Your task to perform on an android device: Search for "dell alienware" on bestbuy, select the first entry, add it to the cart, then select checkout. Image 0: 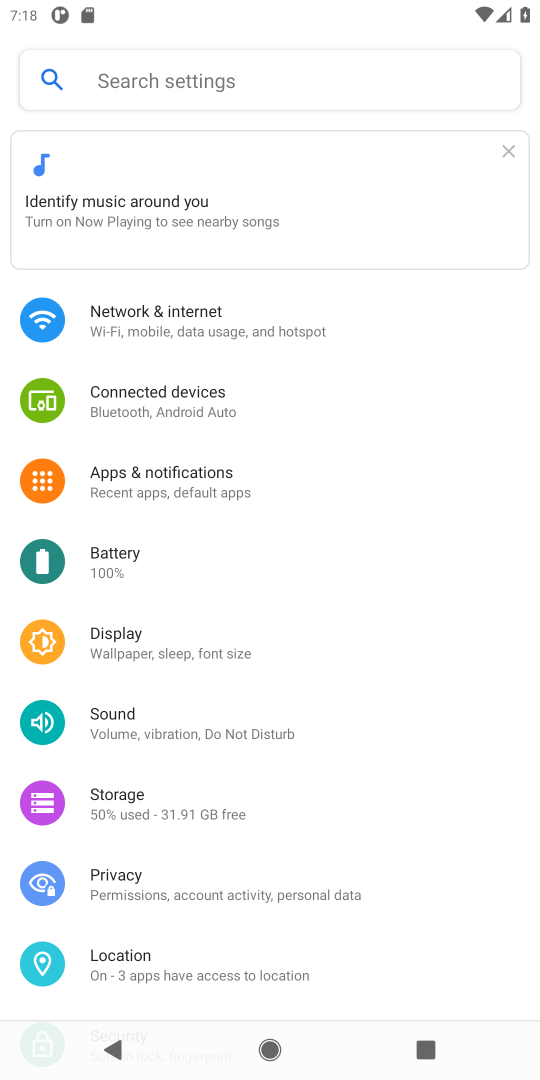
Step 0: press home button
Your task to perform on an android device: Search for "dell alienware" on bestbuy, select the first entry, add it to the cart, then select checkout. Image 1: 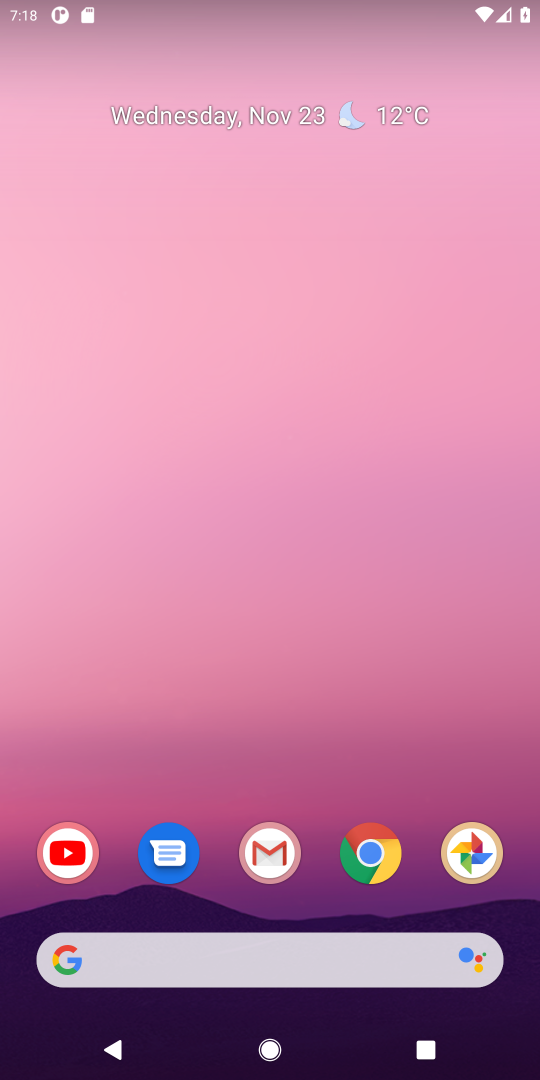
Step 1: click (369, 863)
Your task to perform on an android device: Search for "dell alienware" on bestbuy, select the first entry, add it to the cart, then select checkout. Image 2: 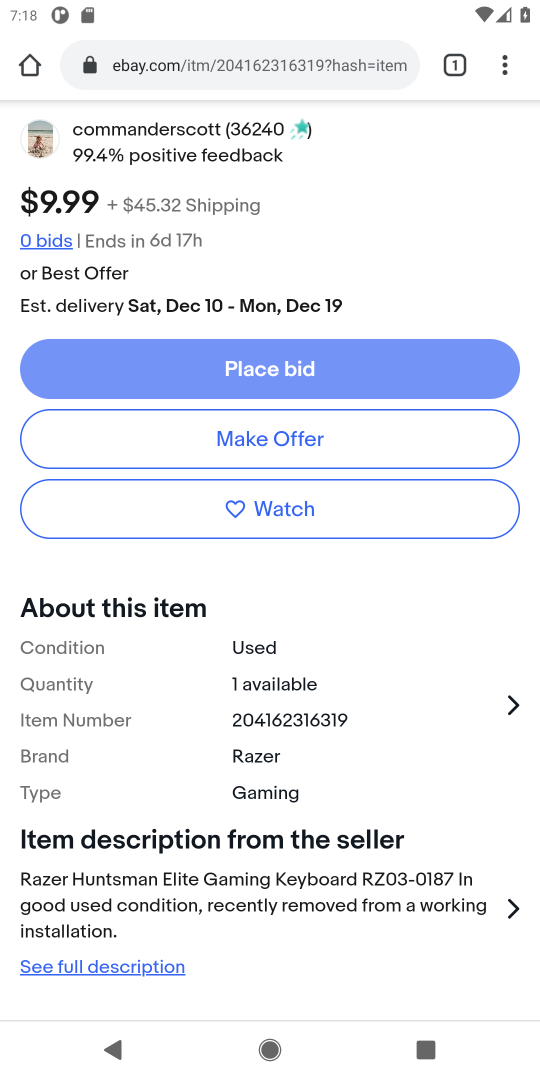
Step 2: click (241, 69)
Your task to perform on an android device: Search for "dell alienware" on bestbuy, select the first entry, add it to the cart, then select checkout. Image 3: 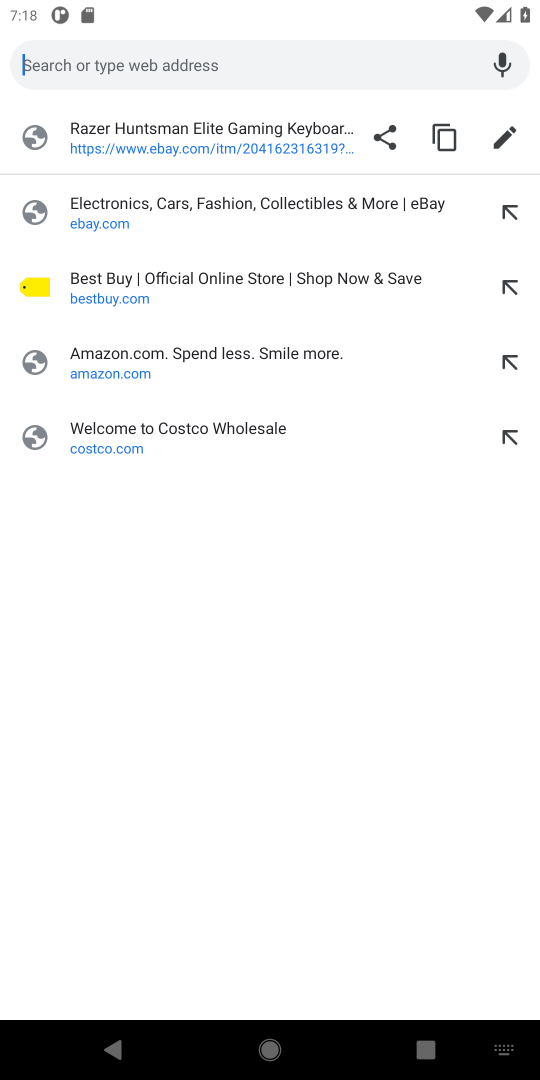
Step 3: click (75, 309)
Your task to perform on an android device: Search for "dell alienware" on bestbuy, select the first entry, add it to the cart, then select checkout. Image 4: 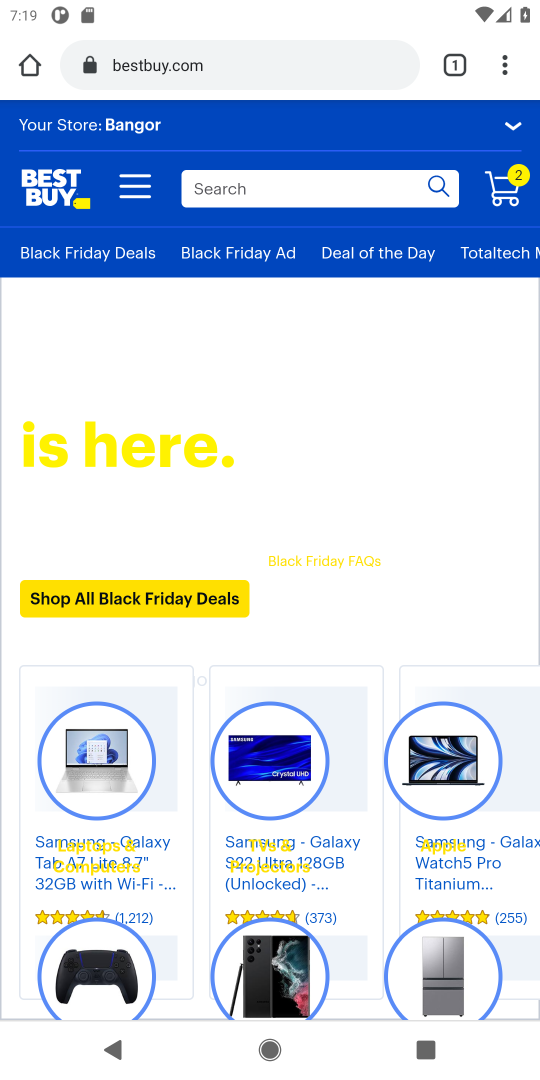
Step 4: click (212, 197)
Your task to perform on an android device: Search for "dell alienware" on bestbuy, select the first entry, add it to the cart, then select checkout. Image 5: 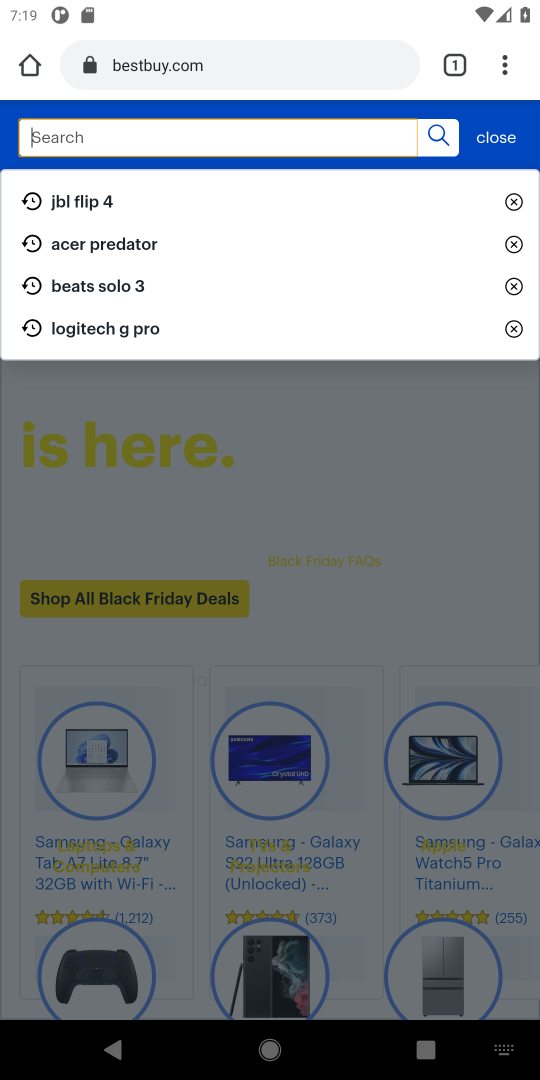
Step 5: type "dell alienware"
Your task to perform on an android device: Search for "dell alienware" on bestbuy, select the first entry, add it to the cart, then select checkout. Image 6: 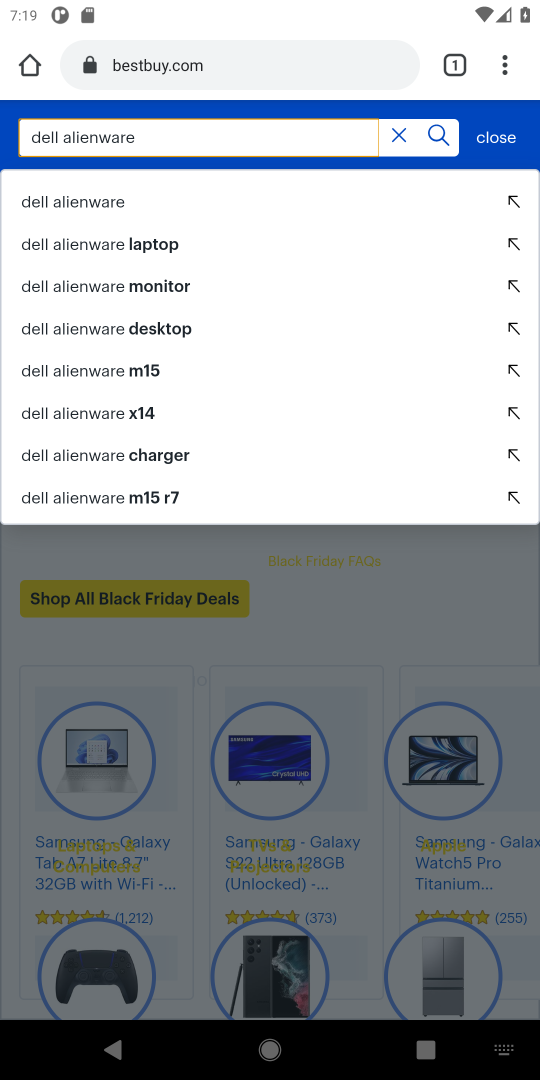
Step 6: click (98, 203)
Your task to perform on an android device: Search for "dell alienware" on bestbuy, select the first entry, add it to the cart, then select checkout. Image 7: 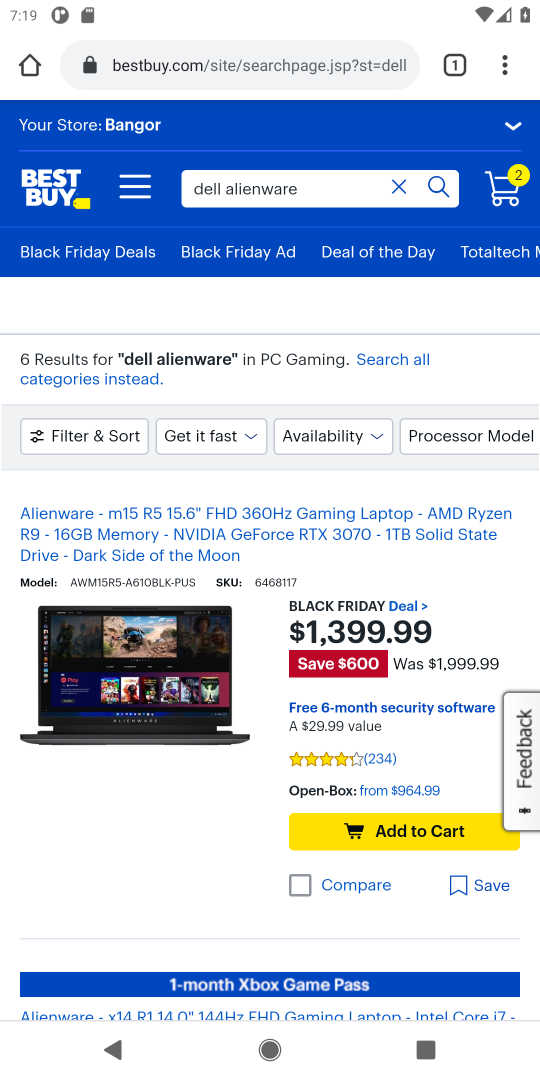
Step 7: click (121, 707)
Your task to perform on an android device: Search for "dell alienware" on bestbuy, select the first entry, add it to the cart, then select checkout. Image 8: 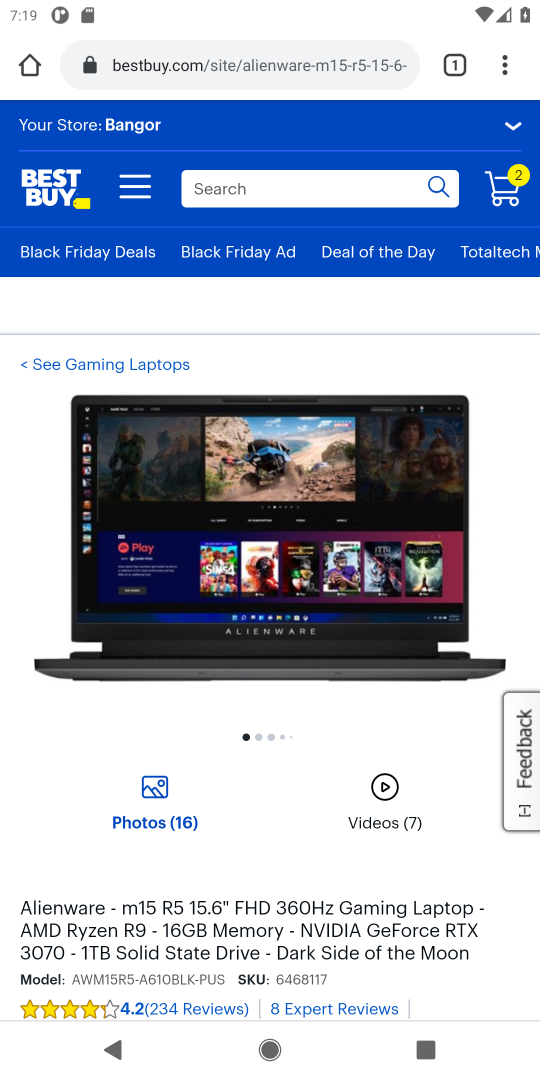
Step 8: drag from (256, 797) to (240, 461)
Your task to perform on an android device: Search for "dell alienware" on bestbuy, select the first entry, add it to the cart, then select checkout. Image 9: 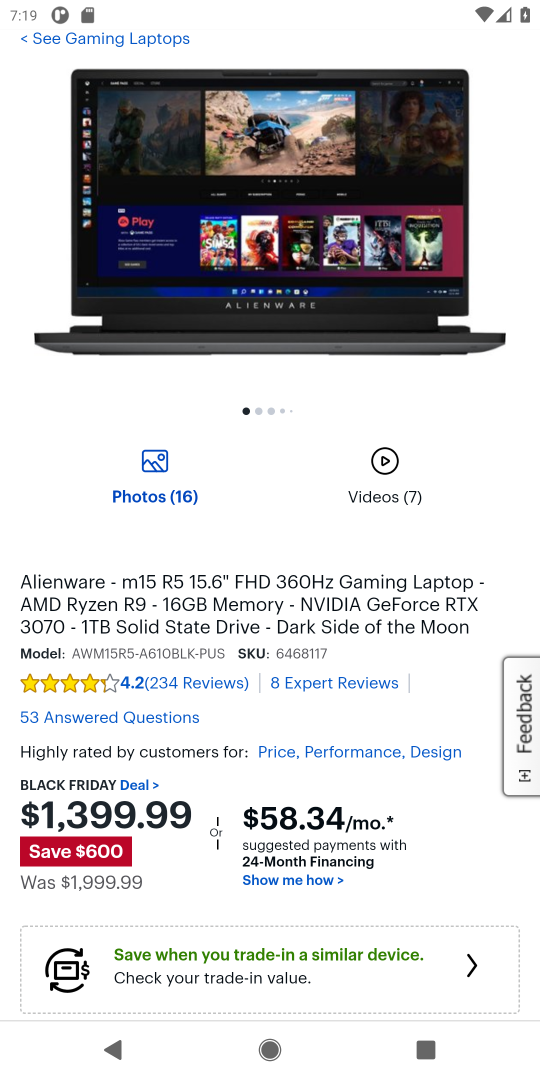
Step 9: drag from (207, 755) to (219, 304)
Your task to perform on an android device: Search for "dell alienware" on bestbuy, select the first entry, add it to the cart, then select checkout. Image 10: 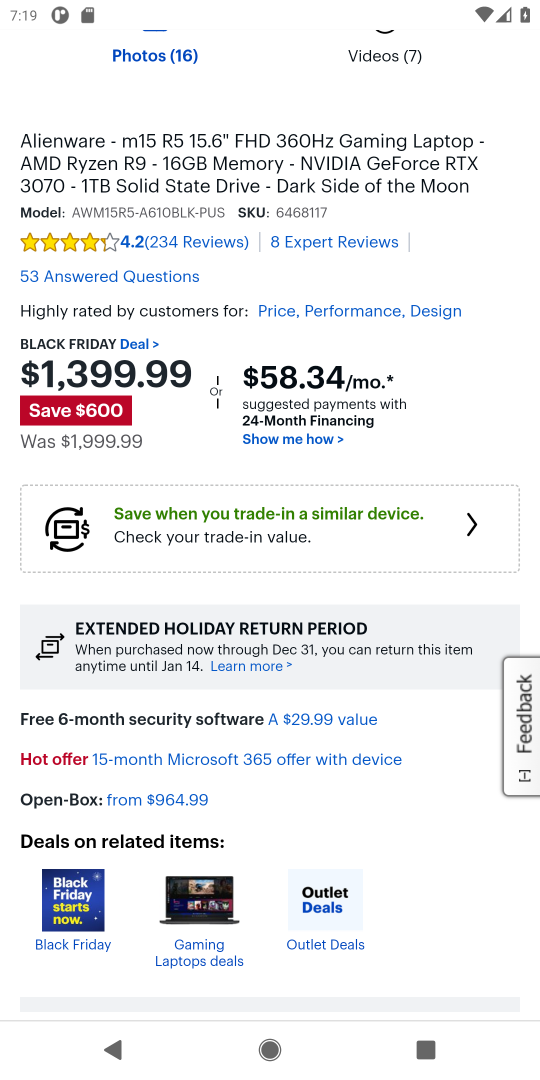
Step 10: drag from (206, 719) to (190, 327)
Your task to perform on an android device: Search for "dell alienware" on bestbuy, select the first entry, add it to the cart, then select checkout. Image 11: 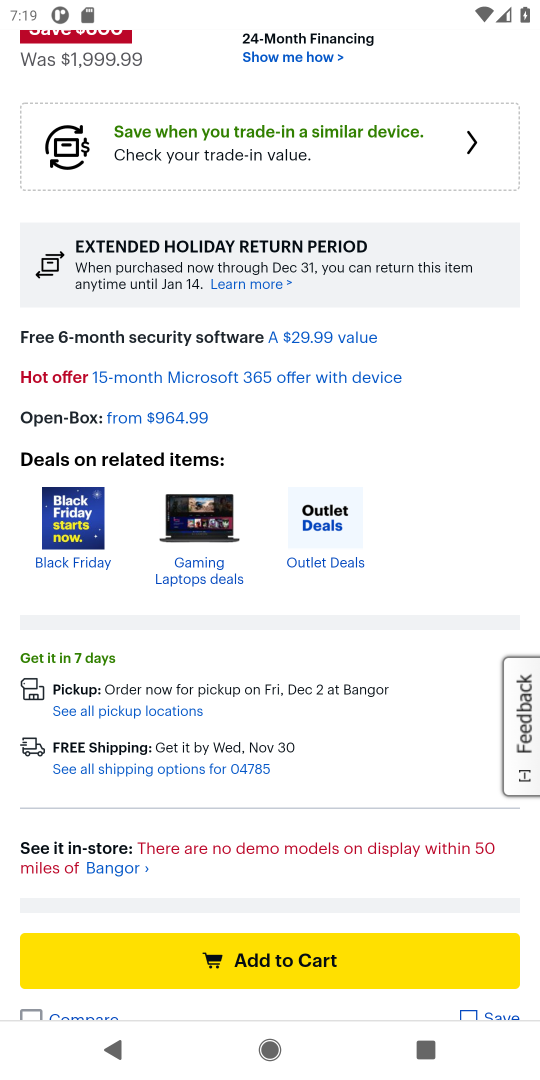
Step 11: click (261, 963)
Your task to perform on an android device: Search for "dell alienware" on bestbuy, select the first entry, add it to the cart, then select checkout. Image 12: 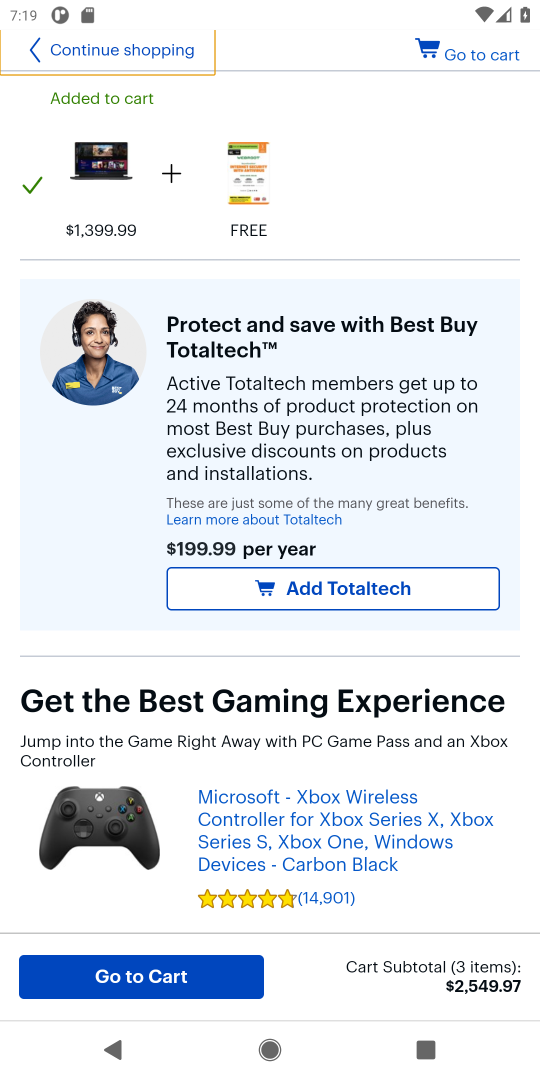
Step 12: click (477, 59)
Your task to perform on an android device: Search for "dell alienware" on bestbuy, select the first entry, add it to the cart, then select checkout. Image 13: 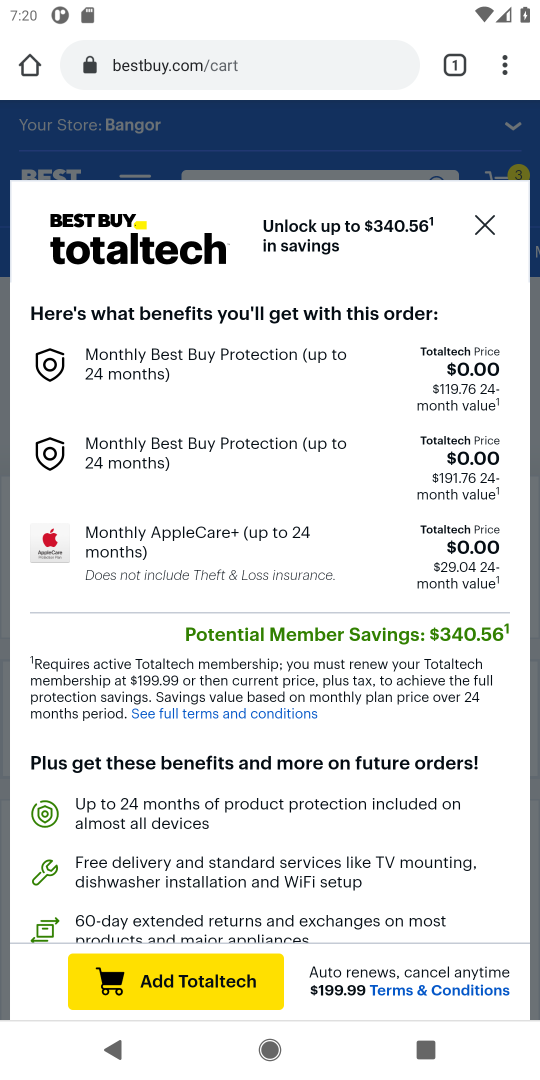
Step 13: click (259, 575)
Your task to perform on an android device: Search for "dell alienware" on bestbuy, select the first entry, add it to the cart, then select checkout. Image 14: 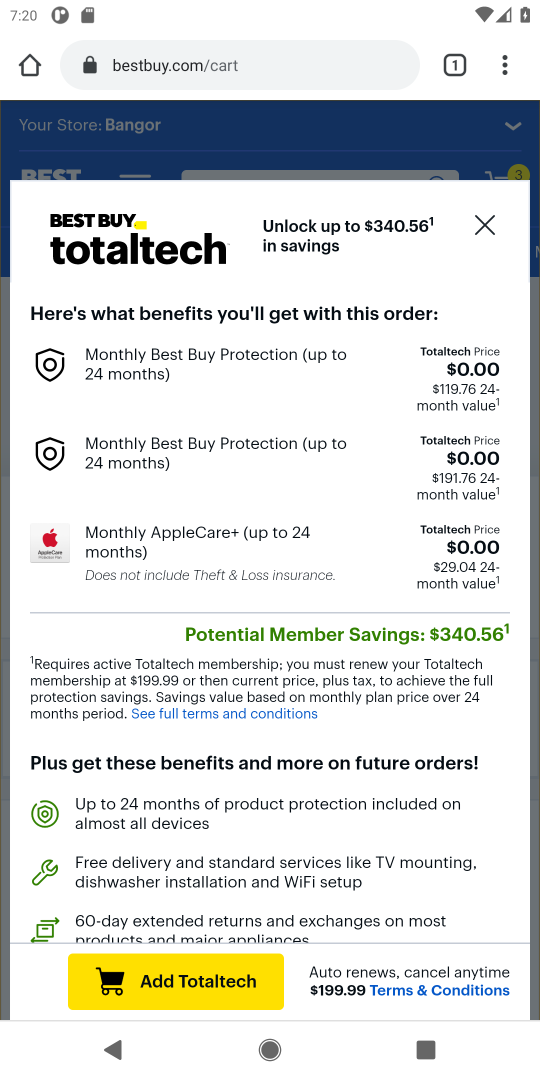
Step 14: click (487, 225)
Your task to perform on an android device: Search for "dell alienware" on bestbuy, select the first entry, add it to the cart, then select checkout. Image 15: 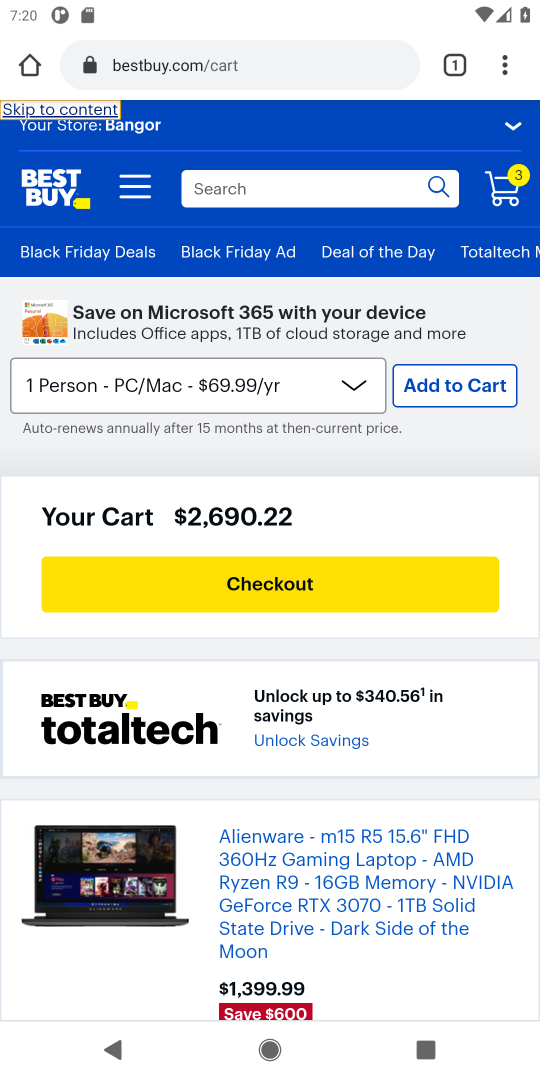
Step 15: click (276, 587)
Your task to perform on an android device: Search for "dell alienware" on bestbuy, select the first entry, add it to the cart, then select checkout. Image 16: 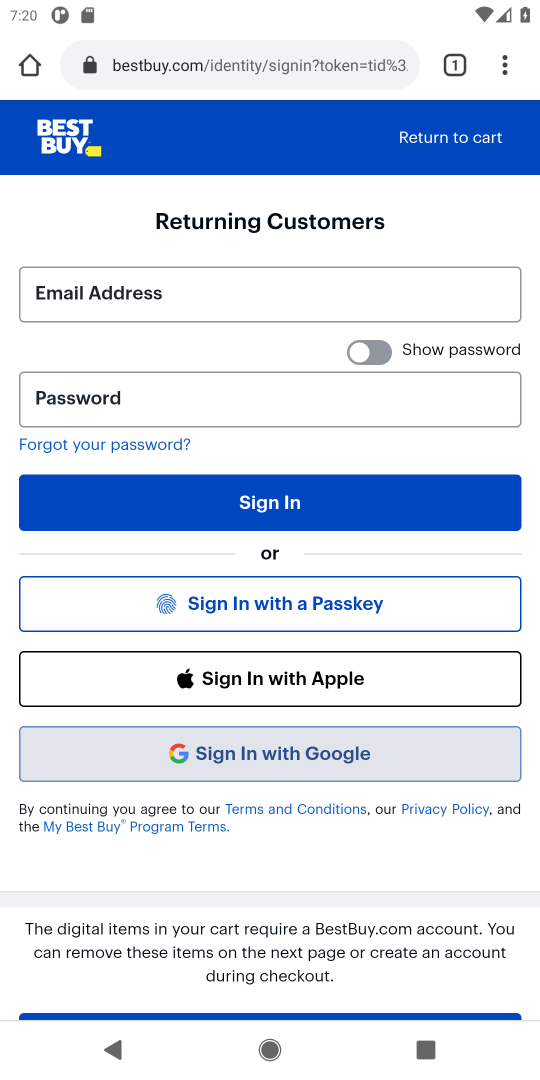
Step 16: task complete